Your task to perform on an android device: Add "razer naga" to the cart on bestbuy, then select checkout. Image 0: 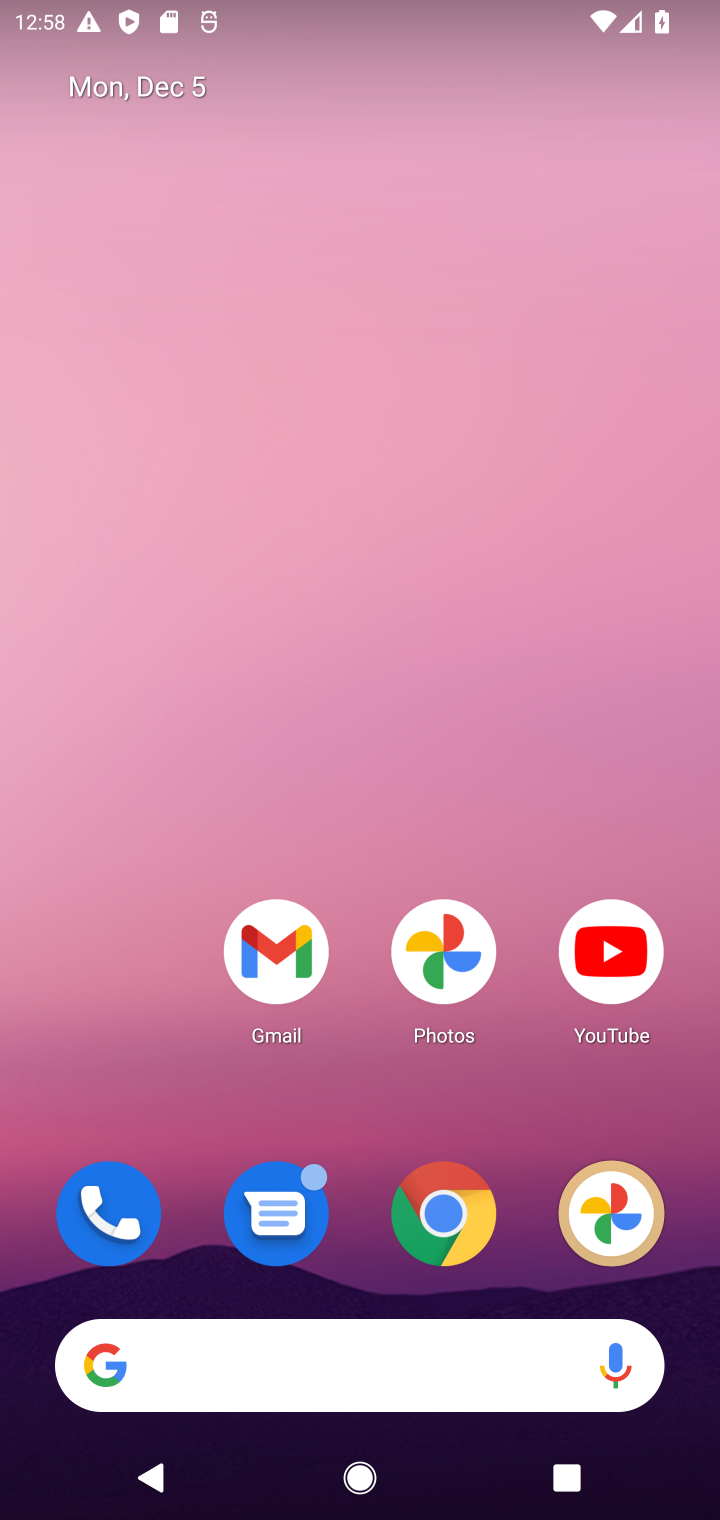
Step 0: click (458, 1225)
Your task to perform on an android device: Add "razer naga" to the cart on bestbuy, then select checkout. Image 1: 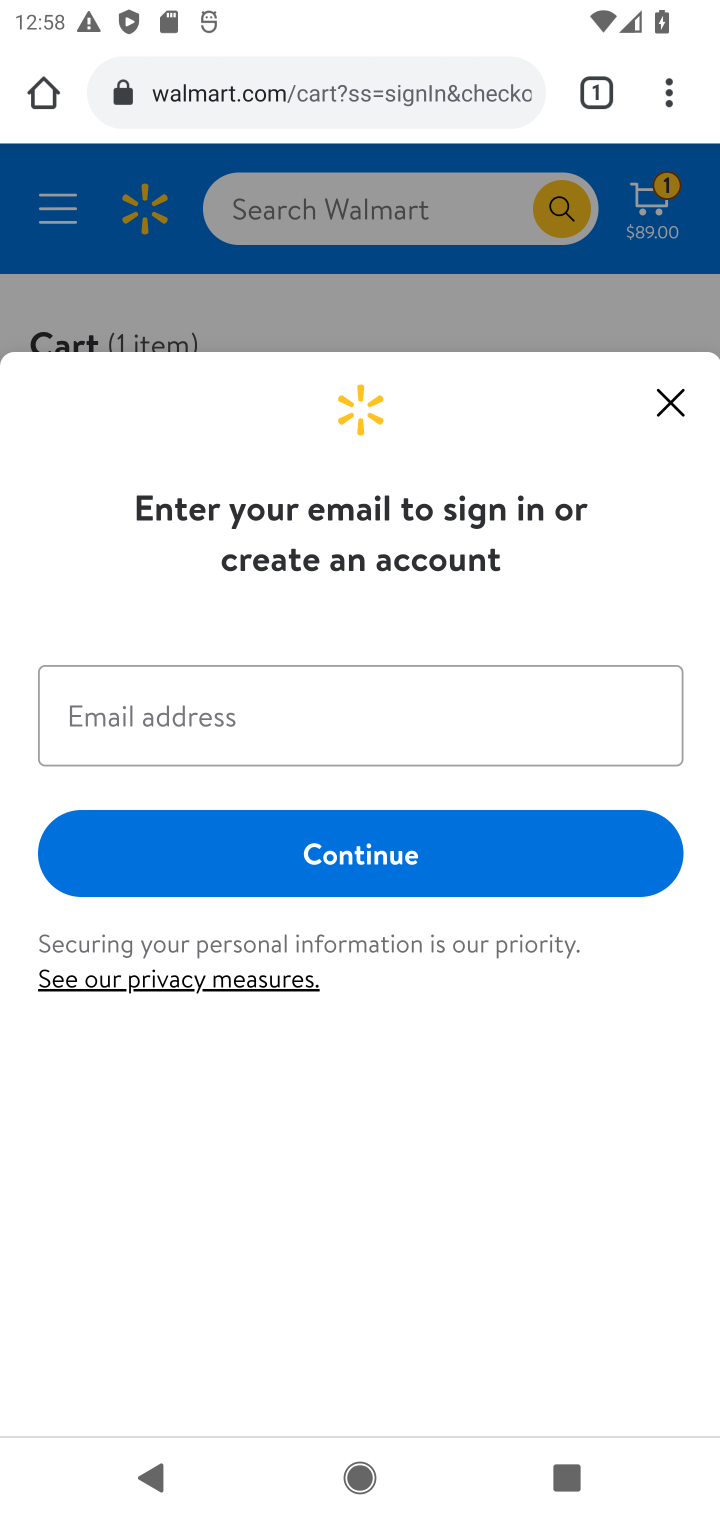
Step 1: click (293, 89)
Your task to perform on an android device: Add "razer naga" to the cart on bestbuy, then select checkout. Image 2: 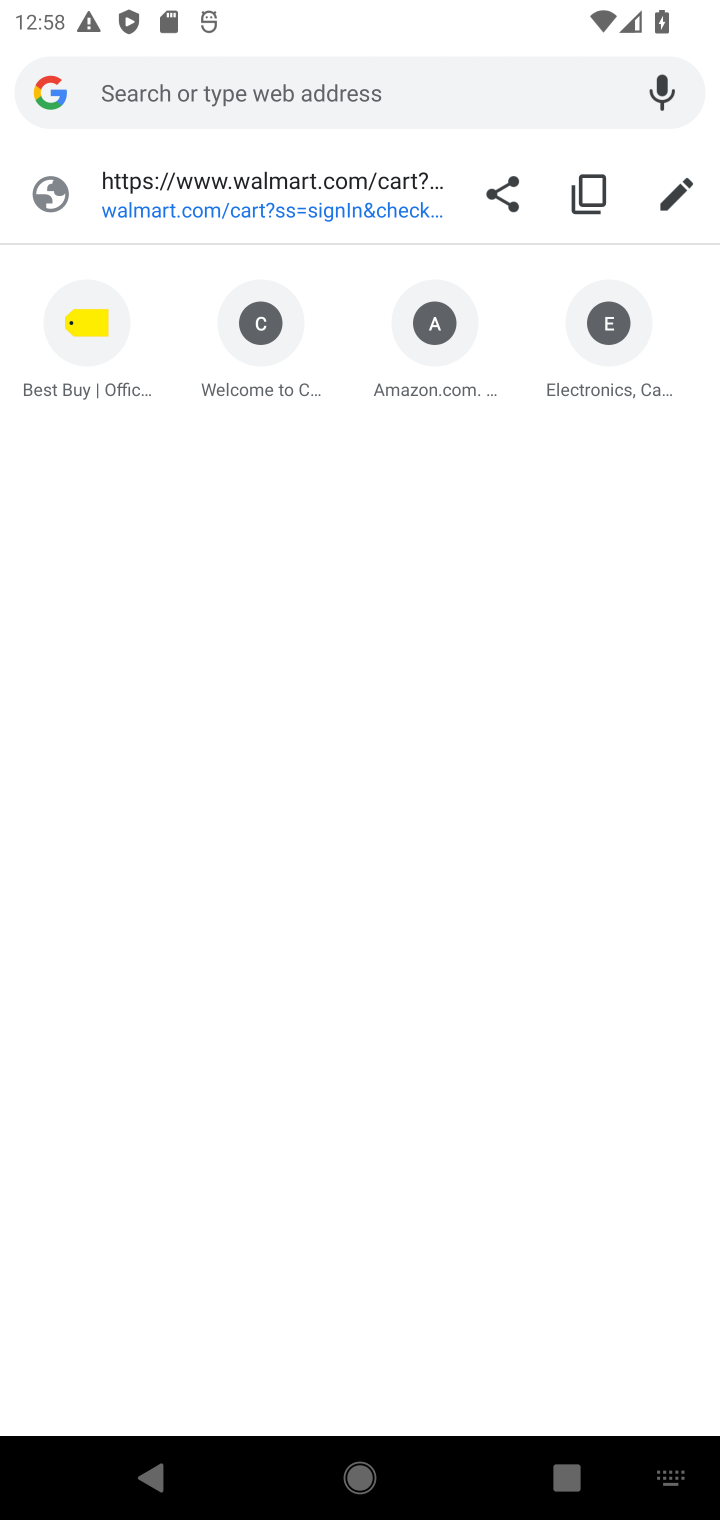
Step 2: click (76, 332)
Your task to perform on an android device: Add "razer naga" to the cart on bestbuy, then select checkout. Image 3: 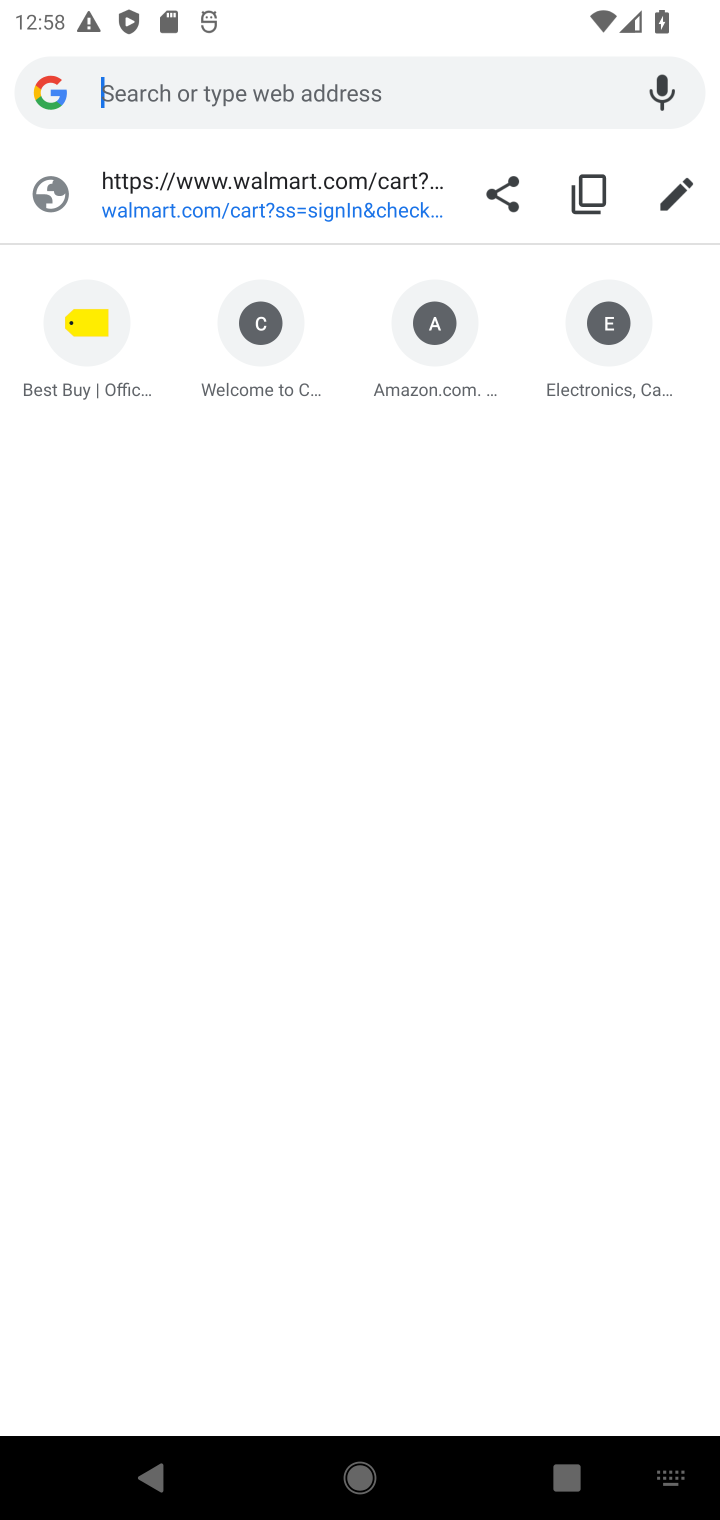
Step 3: click (76, 332)
Your task to perform on an android device: Add "razer naga" to the cart on bestbuy, then select checkout. Image 4: 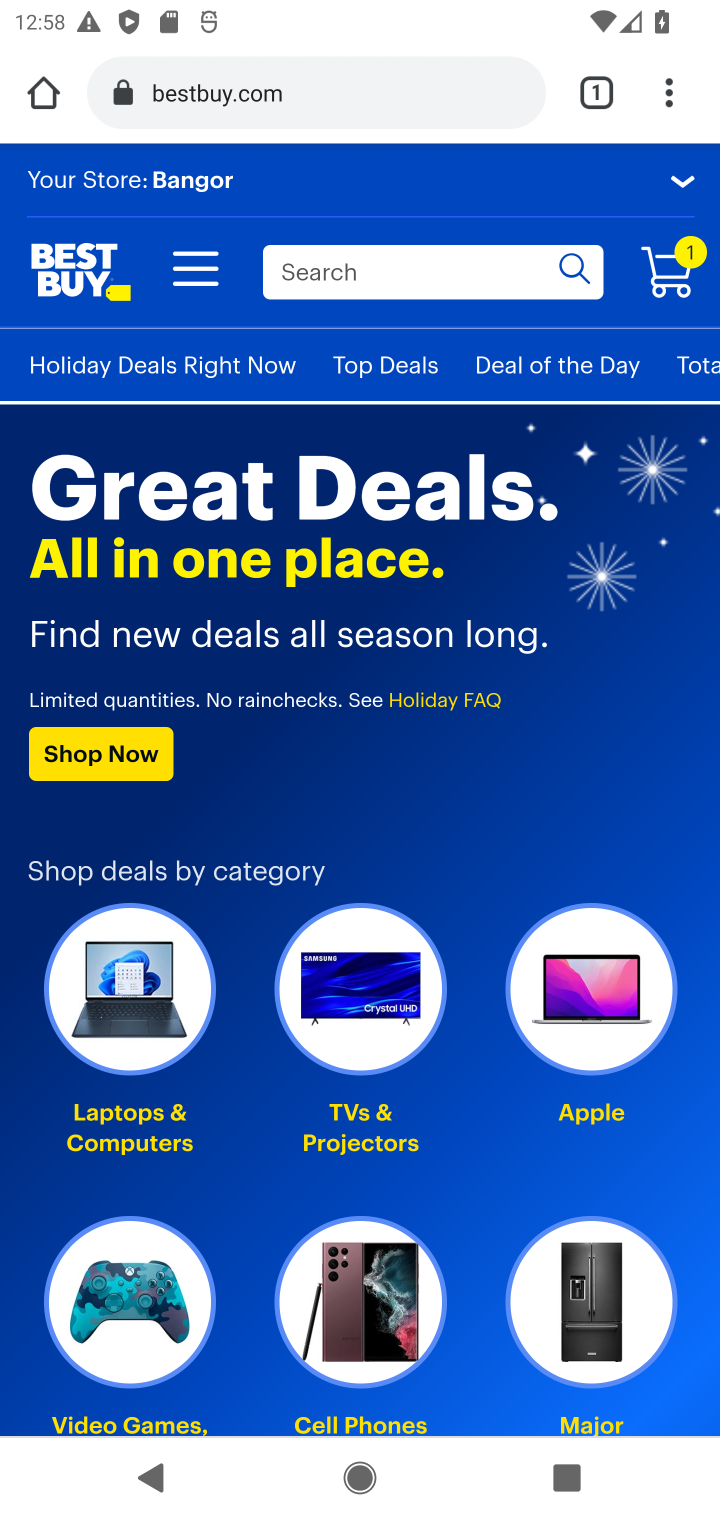
Step 4: click (321, 277)
Your task to perform on an android device: Add "razer naga" to the cart on bestbuy, then select checkout. Image 5: 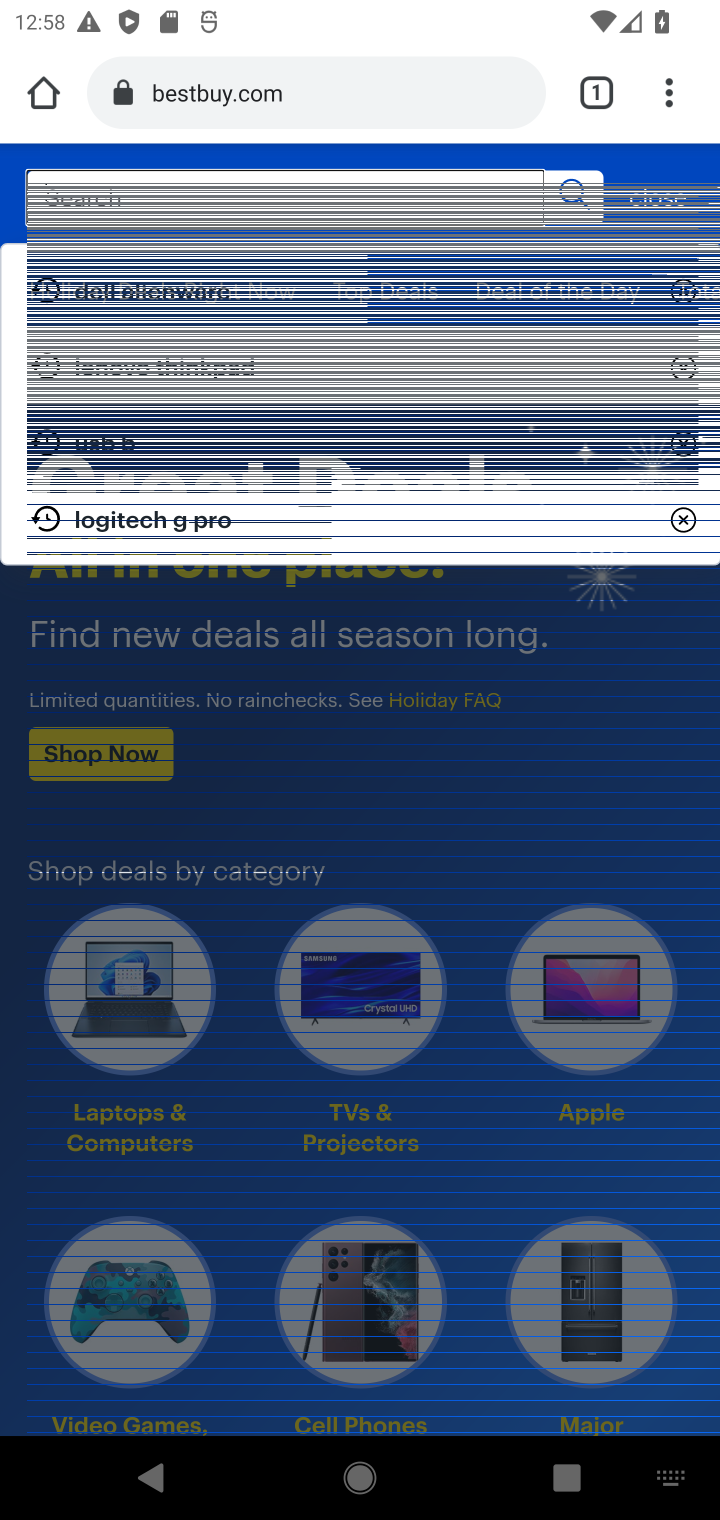
Step 5: click (124, 209)
Your task to perform on an android device: Add "razer naga" to the cart on bestbuy, then select checkout. Image 6: 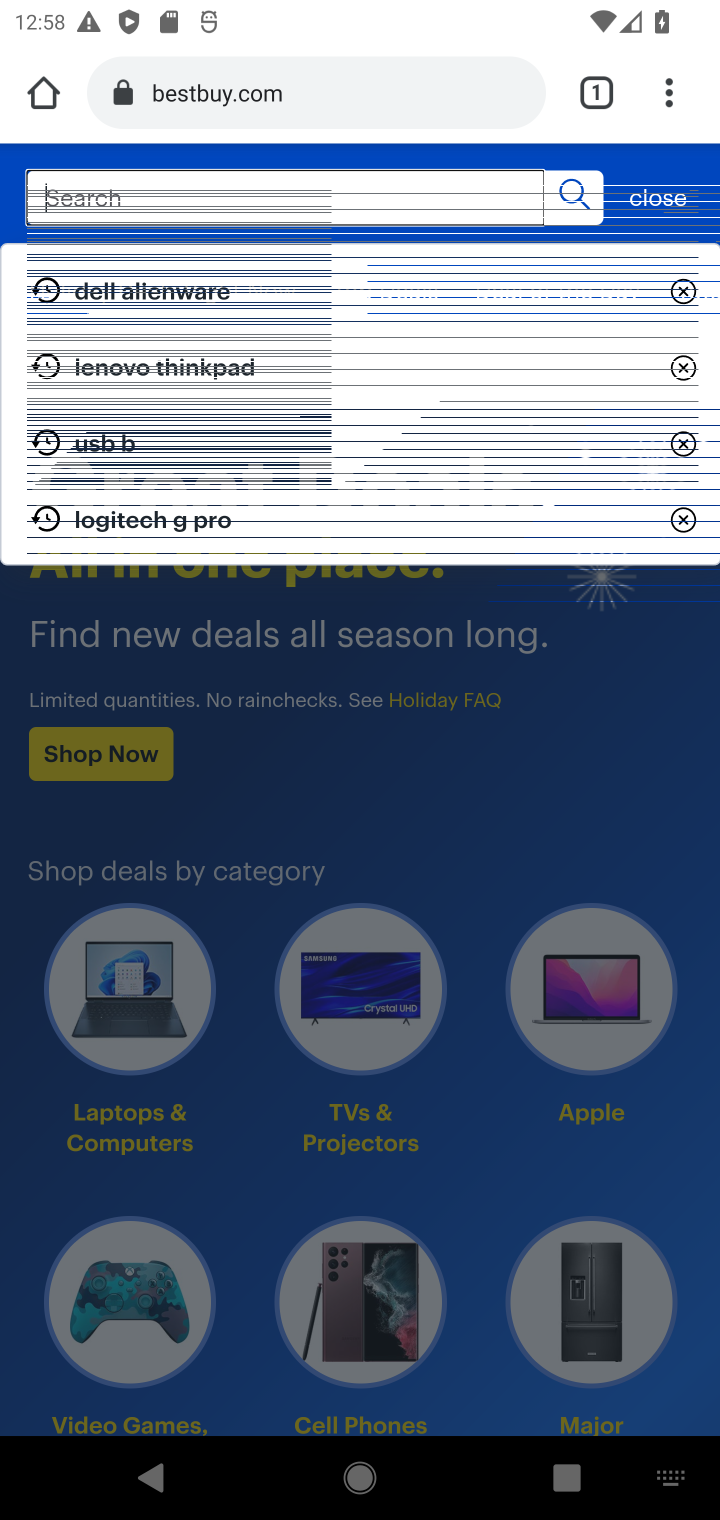
Step 6: type "razer naga"
Your task to perform on an android device: Add "razer naga" to the cart on bestbuy, then select checkout. Image 7: 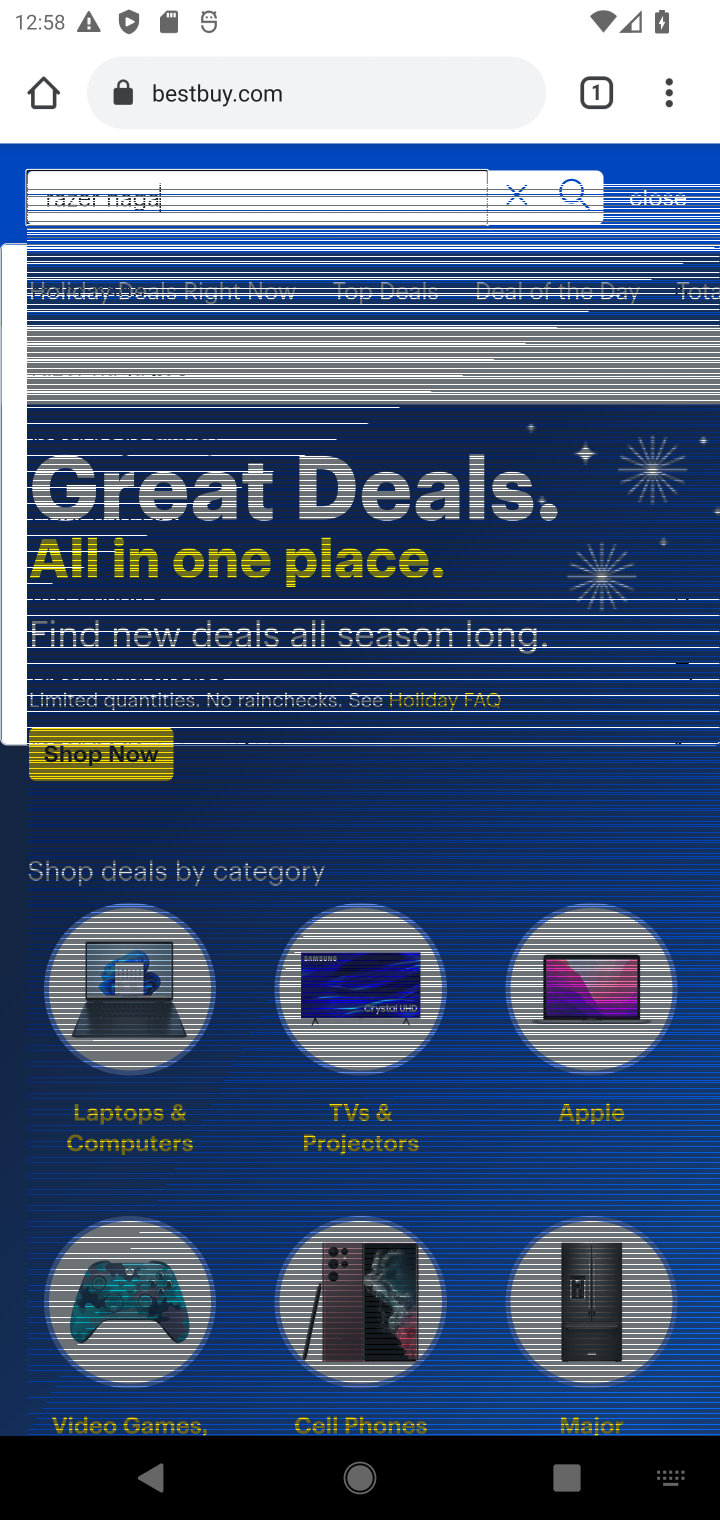
Step 7: click (99, 292)
Your task to perform on an android device: Add "razer naga" to the cart on bestbuy, then select checkout. Image 8: 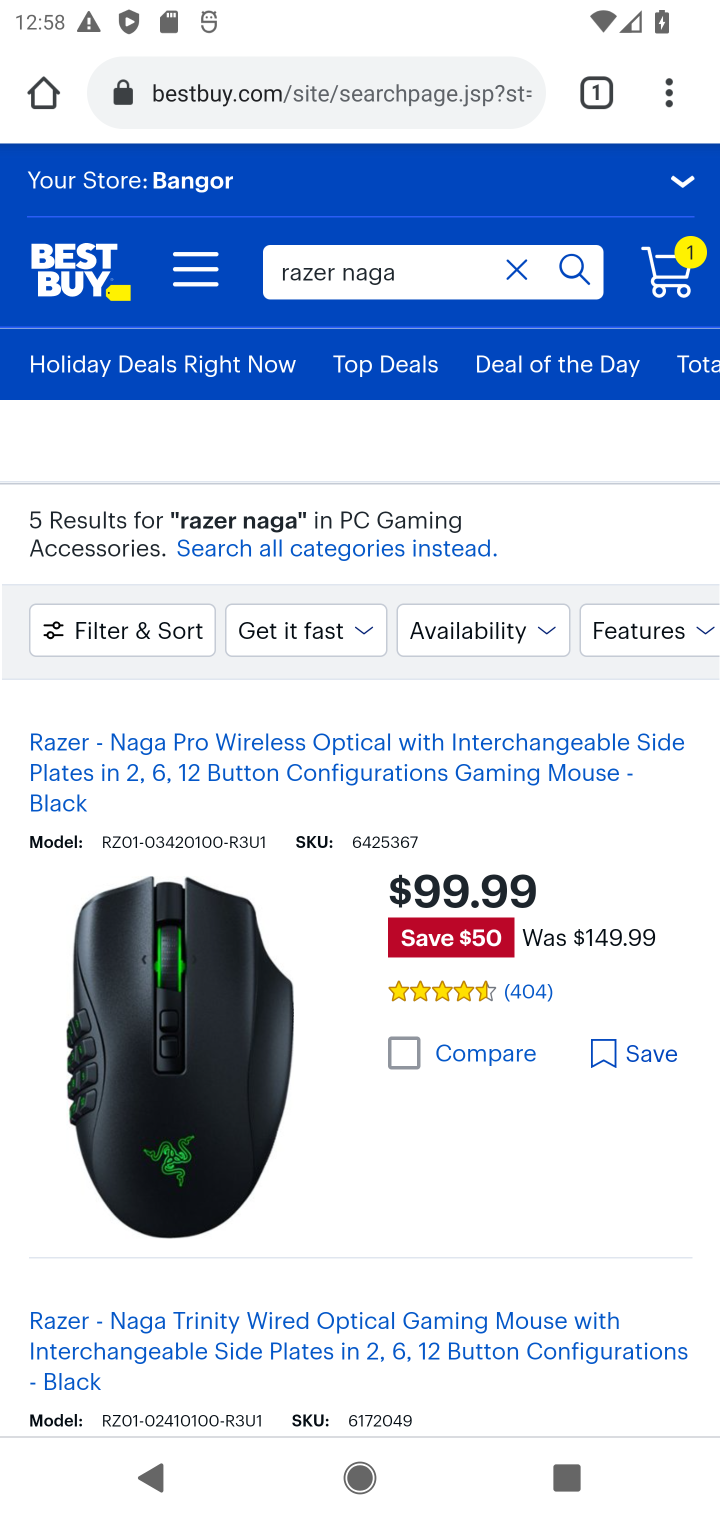
Step 8: drag from (278, 826) to (278, 587)
Your task to perform on an android device: Add "razer naga" to the cart on bestbuy, then select checkout. Image 9: 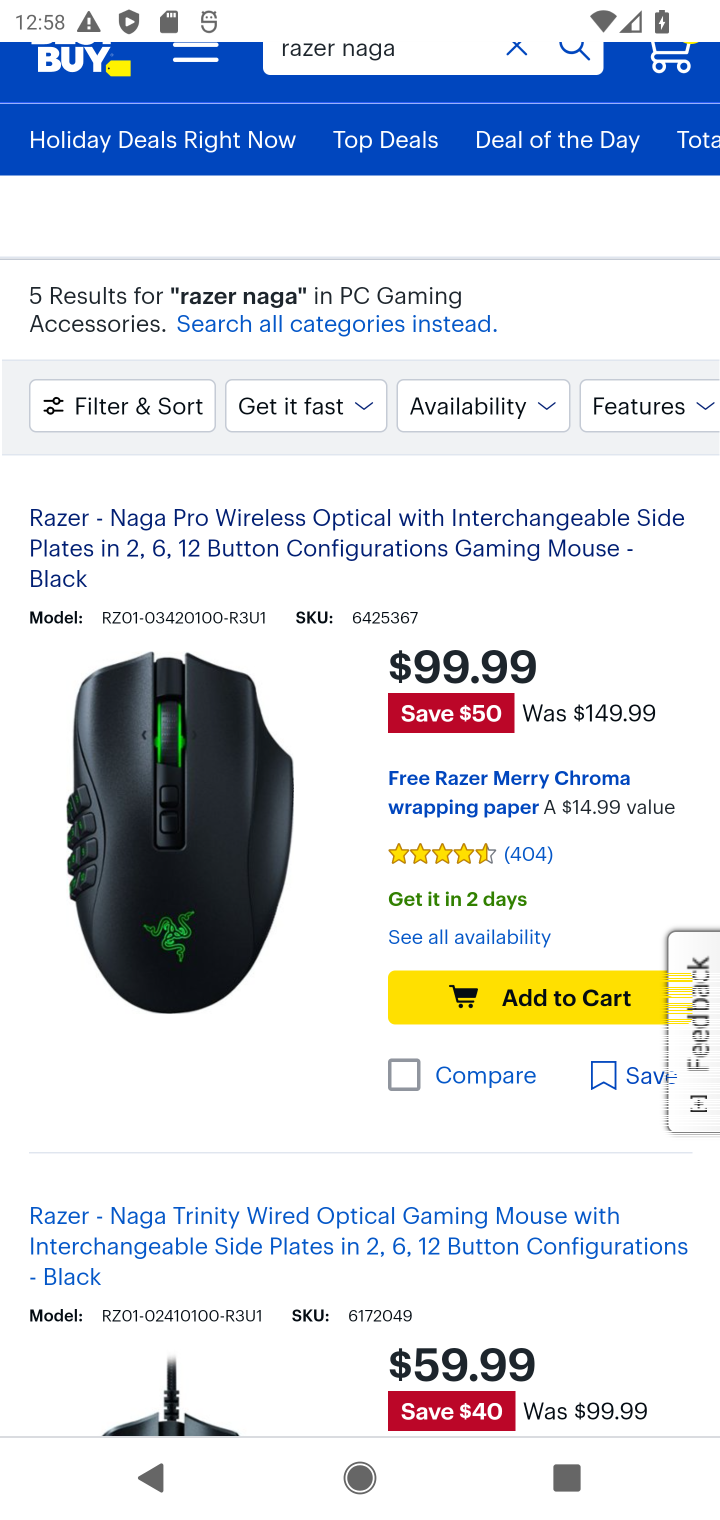
Step 9: click (516, 984)
Your task to perform on an android device: Add "razer naga" to the cart on bestbuy, then select checkout. Image 10: 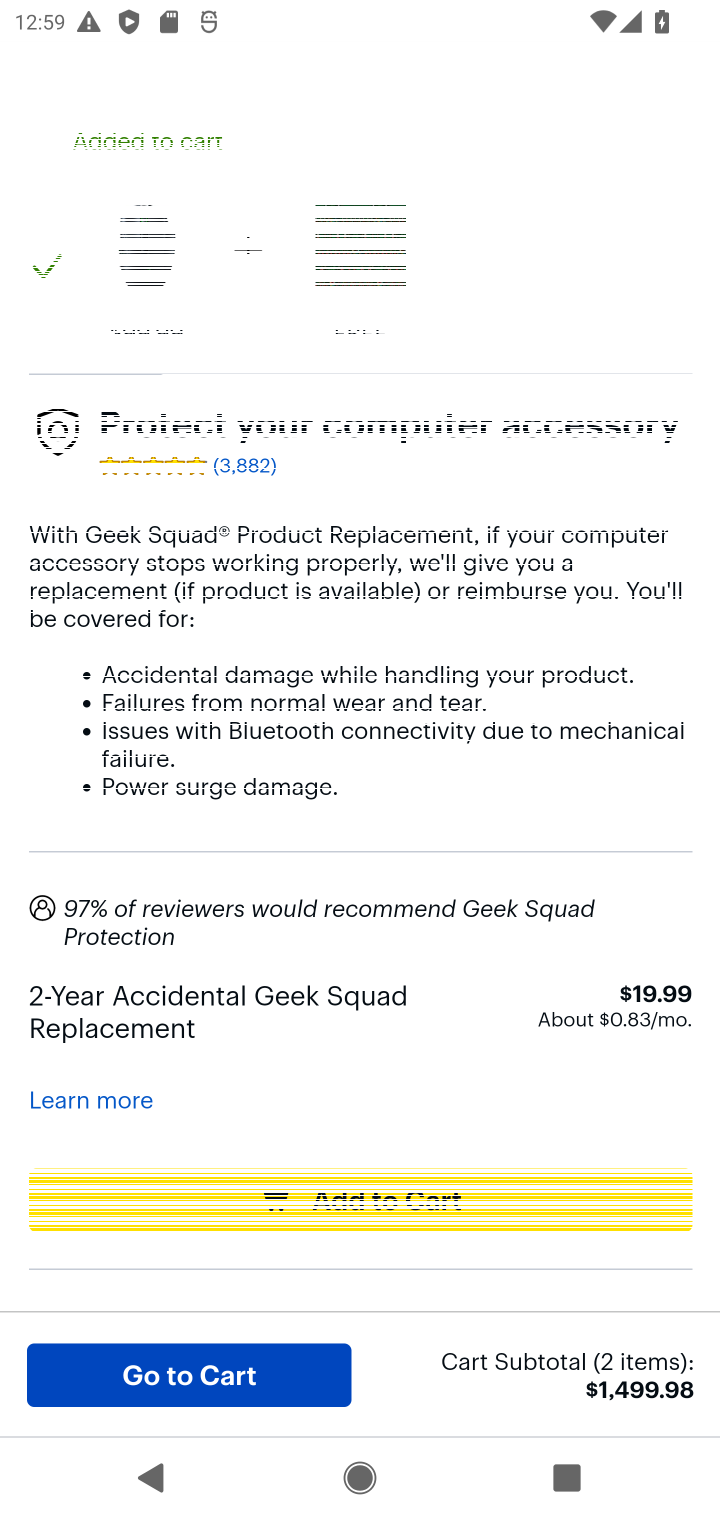
Step 10: click (628, 80)
Your task to perform on an android device: Add "razer naga" to the cart on bestbuy, then select checkout. Image 11: 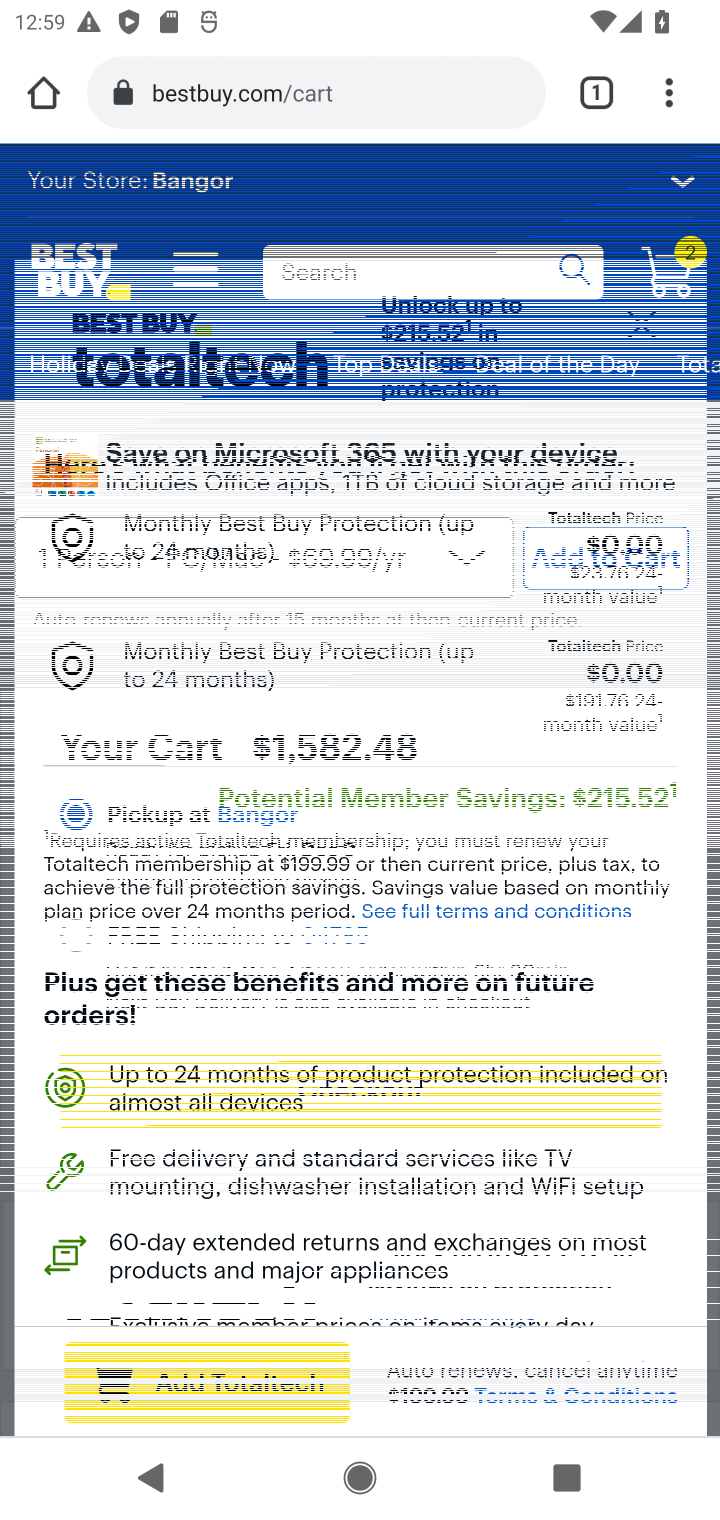
Step 11: click (338, 1105)
Your task to perform on an android device: Add "razer naga" to the cart on bestbuy, then select checkout. Image 12: 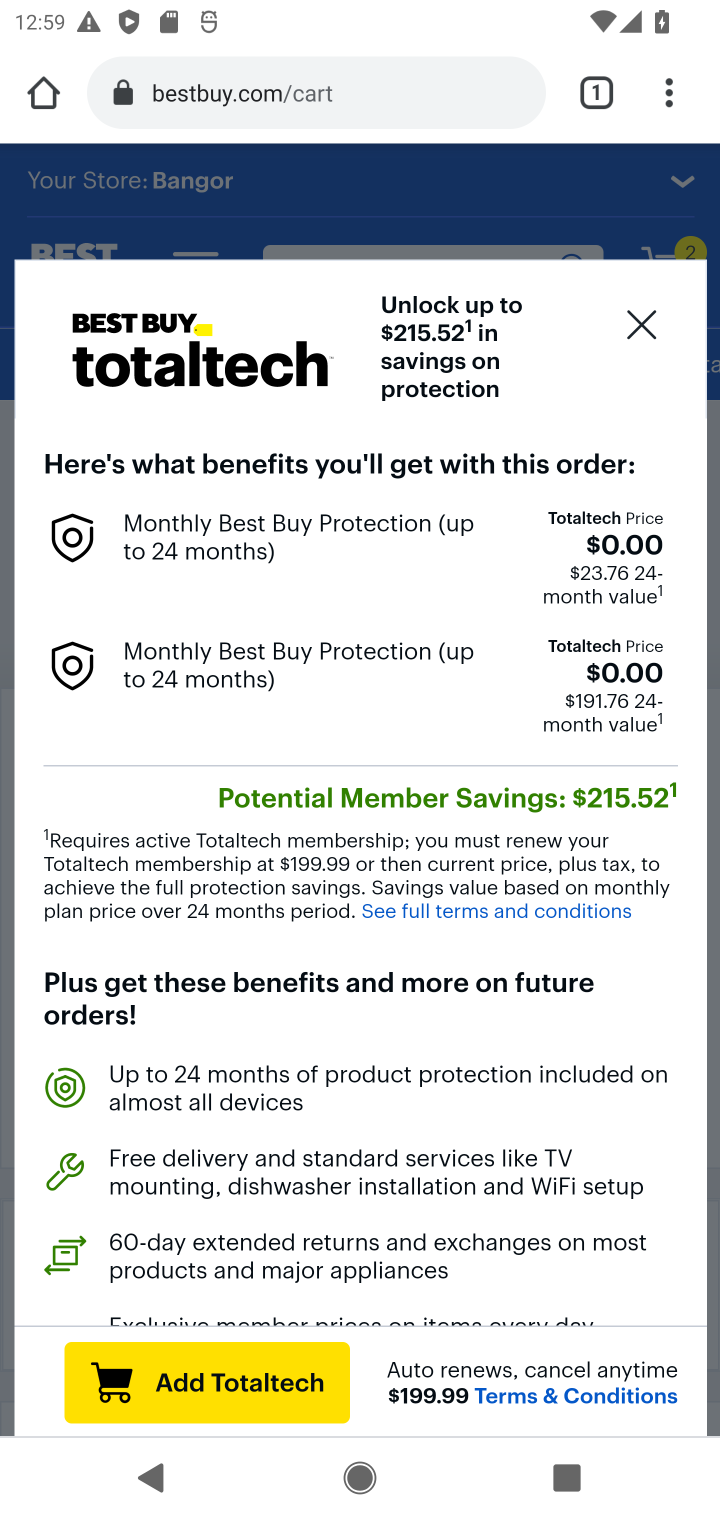
Step 12: click (635, 334)
Your task to perform on an android device: Add "razer naga" to the cart on bestbuy, then select checkout. Image 13: 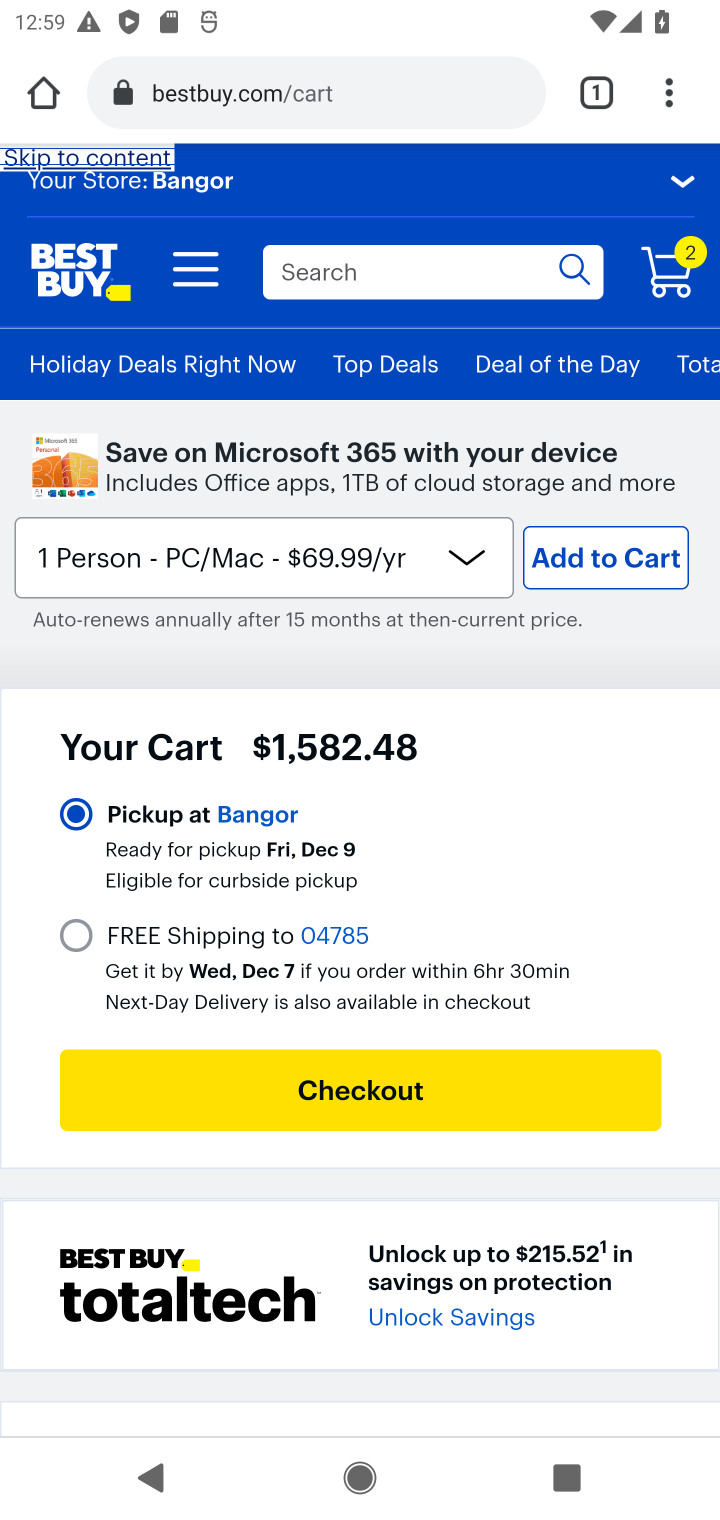
Step 13: click (317, 1091)
Your task to perform on an android device: Add "razer naga" to the cart on bestbuy, then select checkout. Image 14: 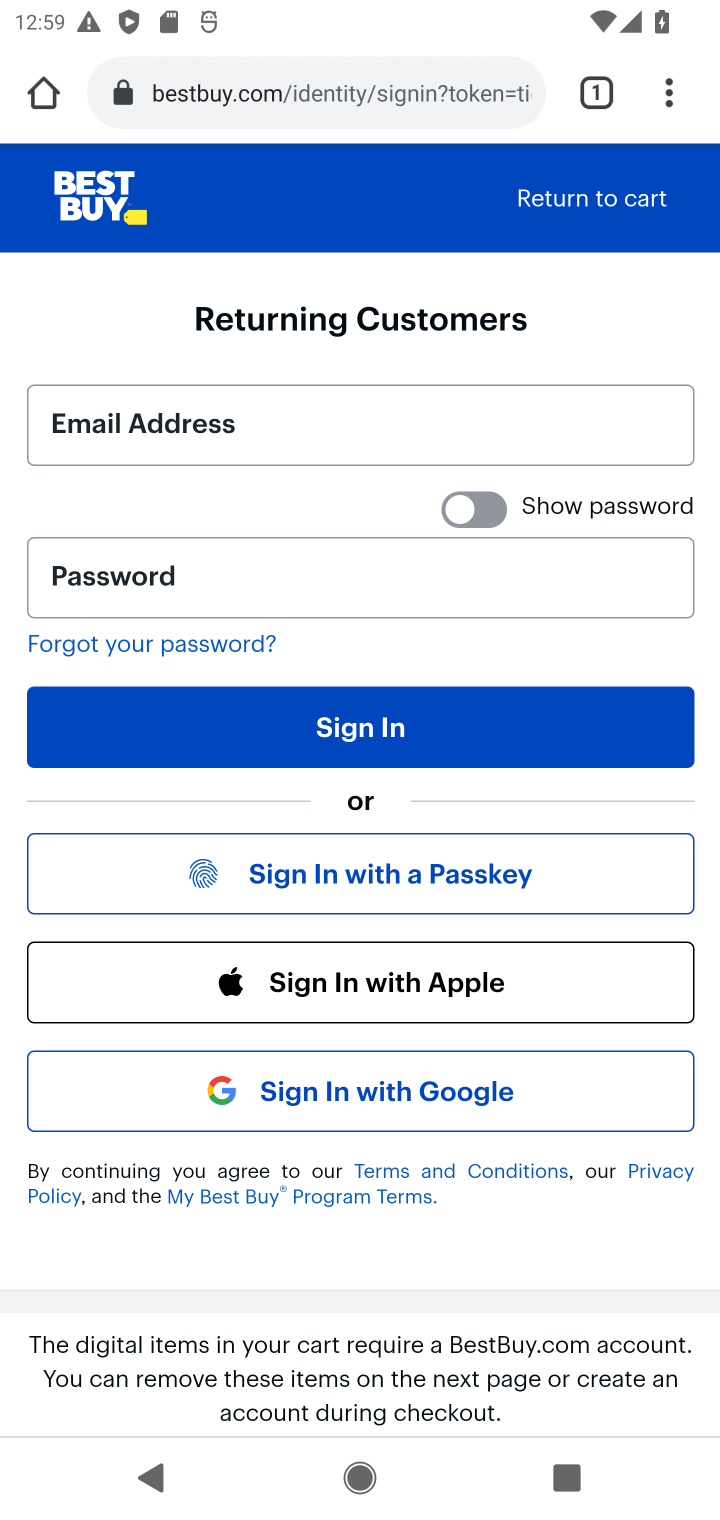
Step 14: task complete